Your task to perform on an android device: Search for Italian restaurants on Maps Image 0: 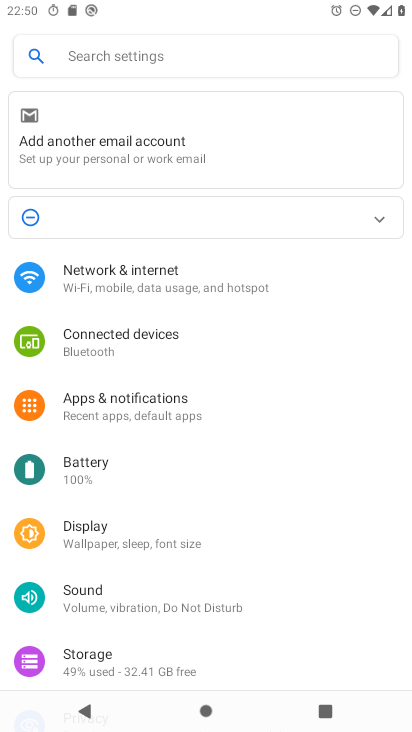
Step 0: press home button
Your task to perform on an android device: Search for Italian restaurants on Maps Image 1: 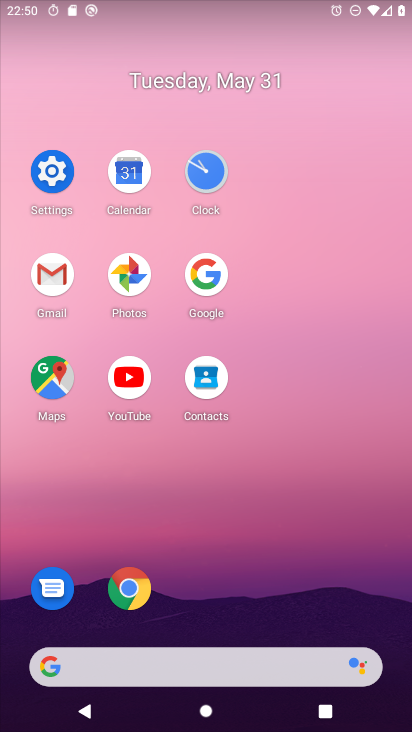
Step 1: click (49, 396)
Your task to perform on an android device: Search for Italian restaurants on Maps Image 2: 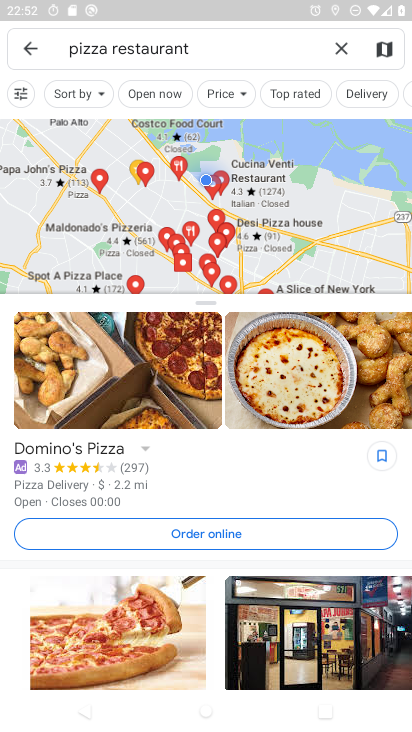
Step 2: click (342, 53)
Your task to perform on an android device: Search for Italian restaurants on Maps Image 3: 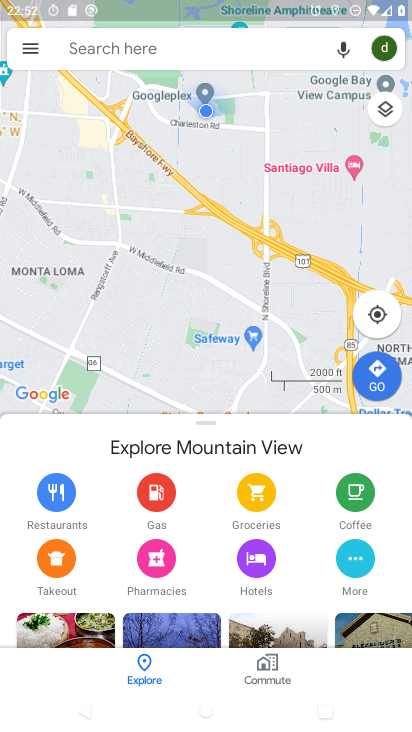
Step 3: click (254, 46)
Your task to perform on an android device: Search for Italian restaurants on Maps Image 4: 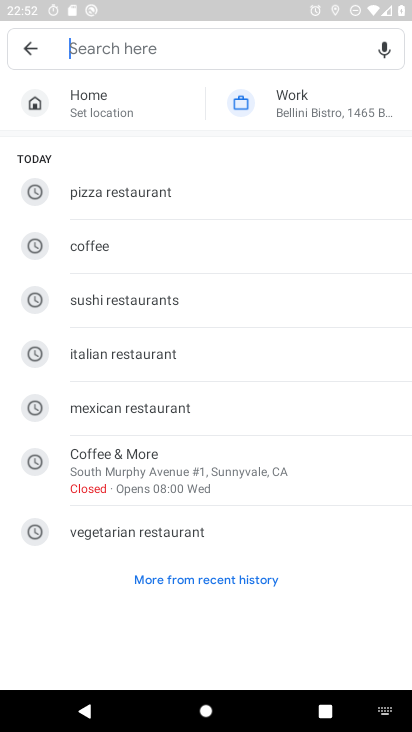
Step 4: click (213, 358)
Your task to perform on an android device: Search for Italian restaurants on Maps Image 5: 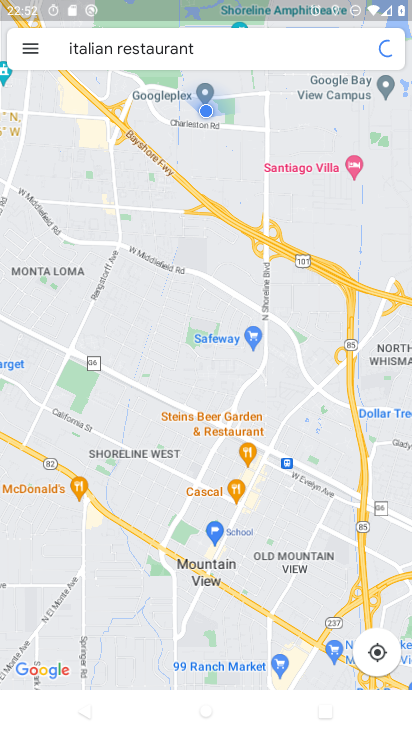
Step 5: task complete